Your task to perform on an android device: install app "Google Home" Image 0: 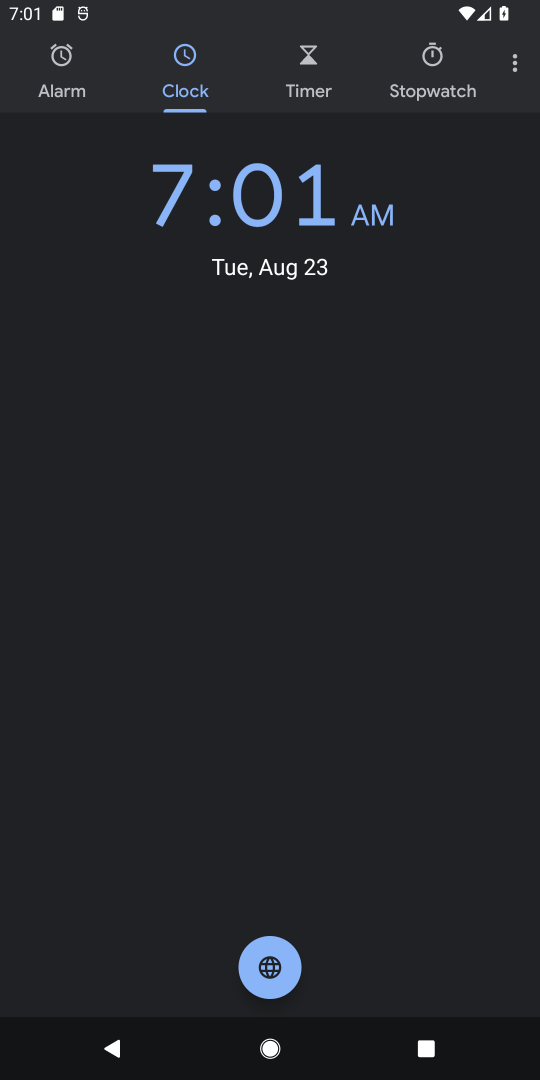
Step 0: press home button
Your task to perform on an android device: install app "Google Home" Image 1: 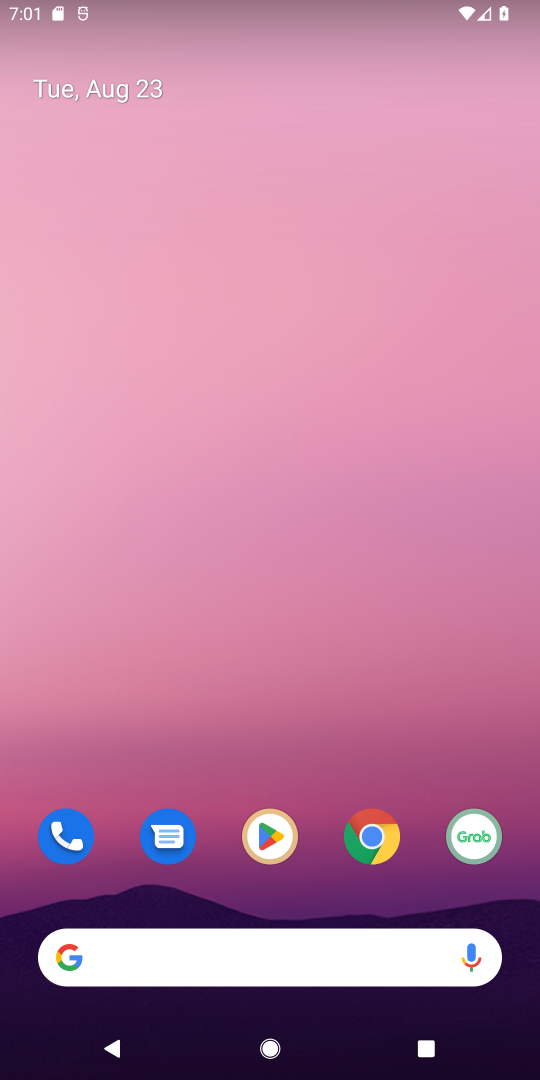
Step 1: click (266, 824)
Your task to perform on an android device: install app "Google Home" Image 2: 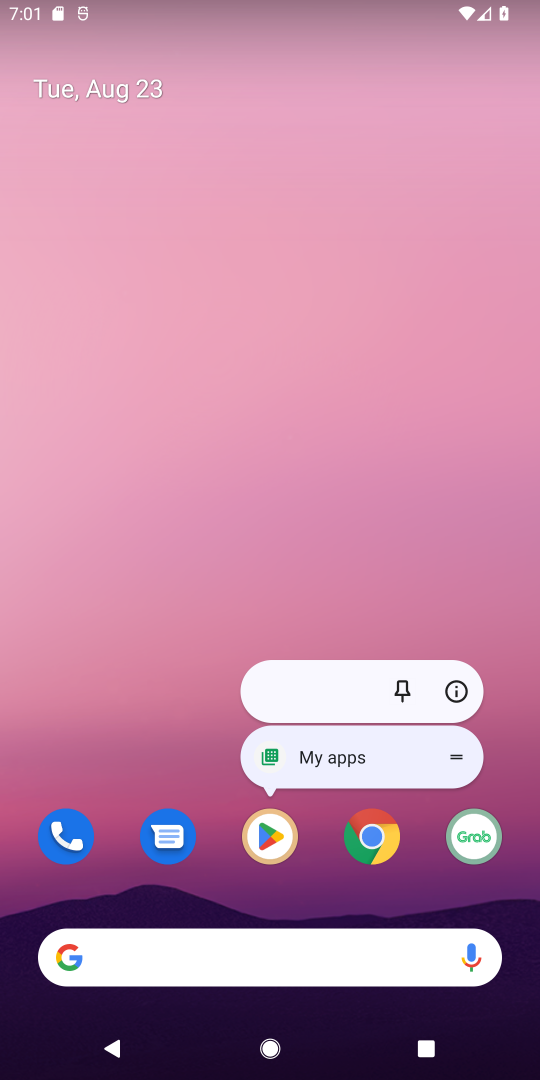
Step 2: click (267, 831)
Your task to perform on an android device: install app "Google Home" Image 3: 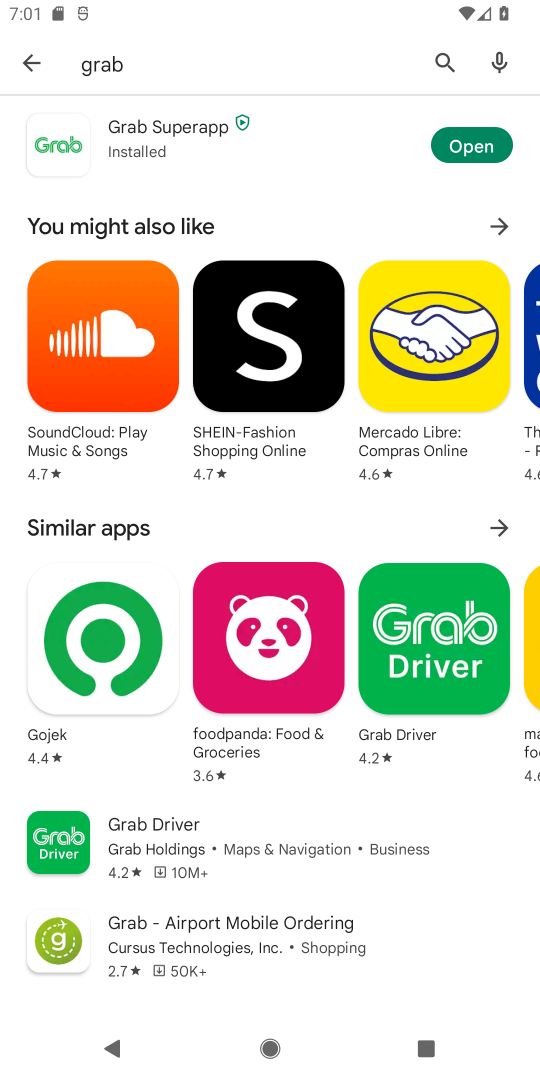
Step 3: click (447, 64)
Your task to perform on an android device: install app "Google Home" Image 4: 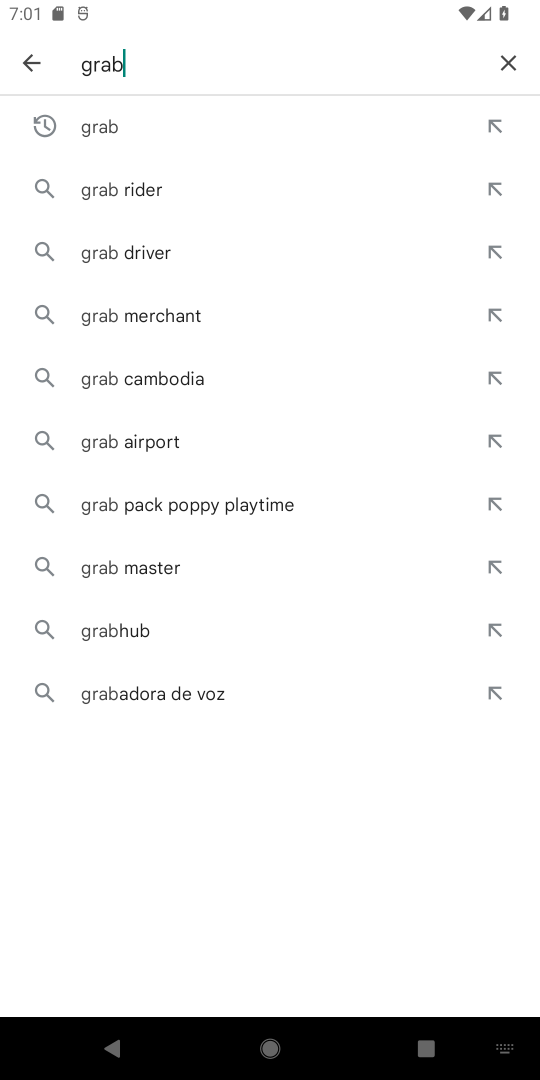
Step 4: click (509, 52)
Your task to perform on an android device: install app "Google Home" Image 5: 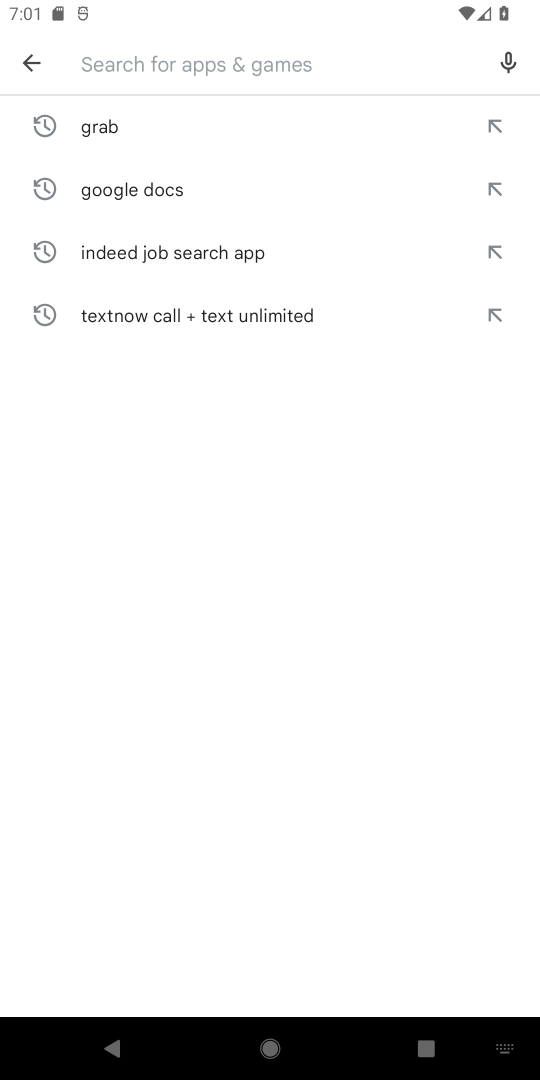
Step 5: type "Google Home"
Your task to perform on an android device: install app "Google Home" Image 6: 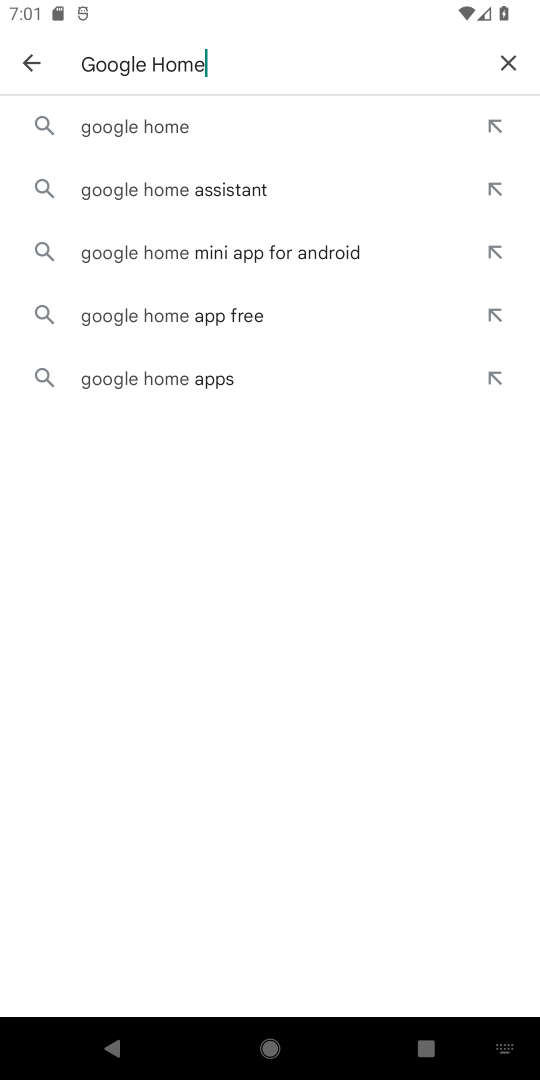
Step 6: click (178, 126)
Your task to perform on an android device: install app "Google Home" Image 7: 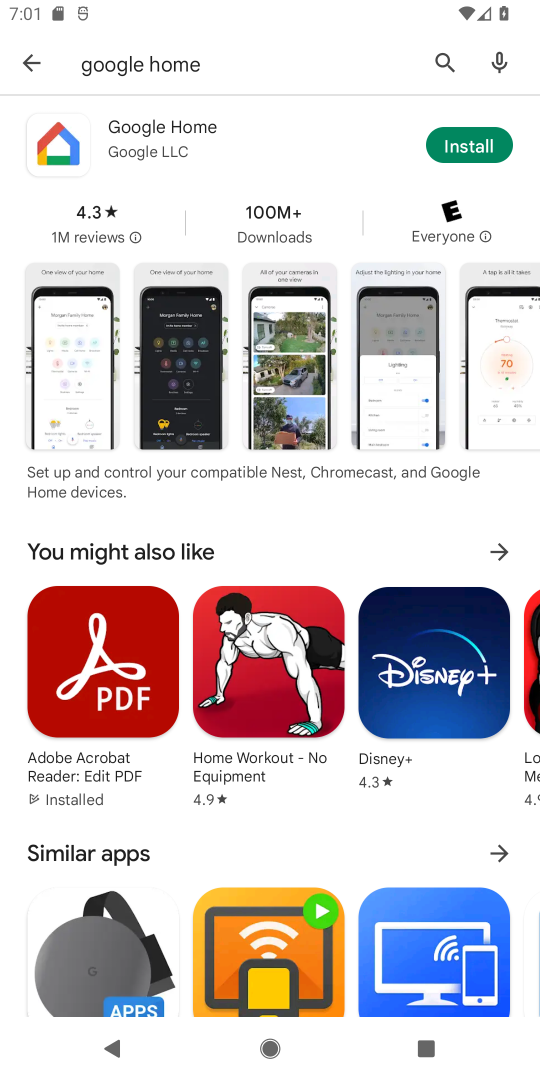
Step 7: click (465, 151)
Your task to perform on an android device: install app "Google Home" Image 8: 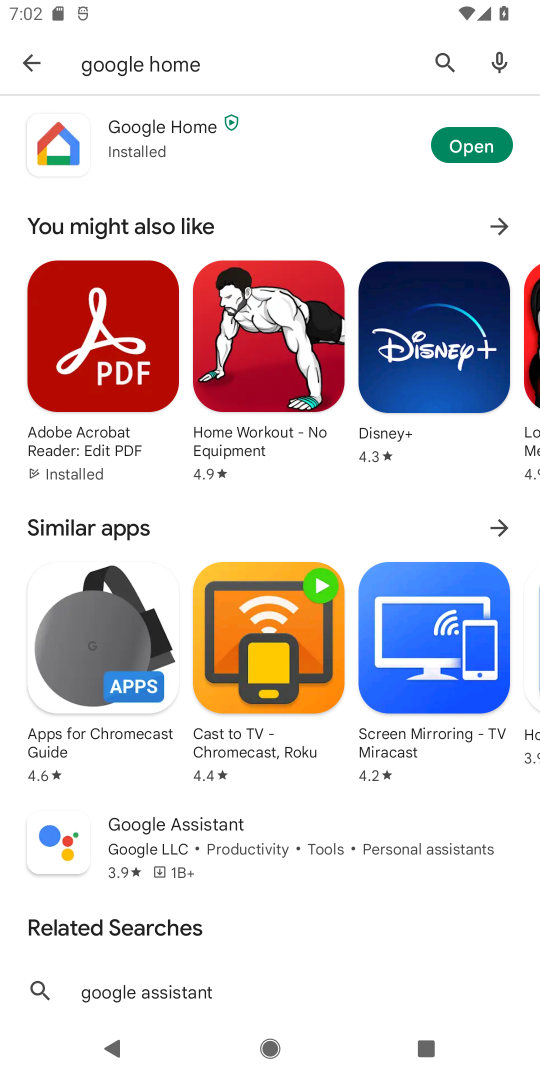
Step 8: task complete